Your task to perform on an android device: check android version Image 0: 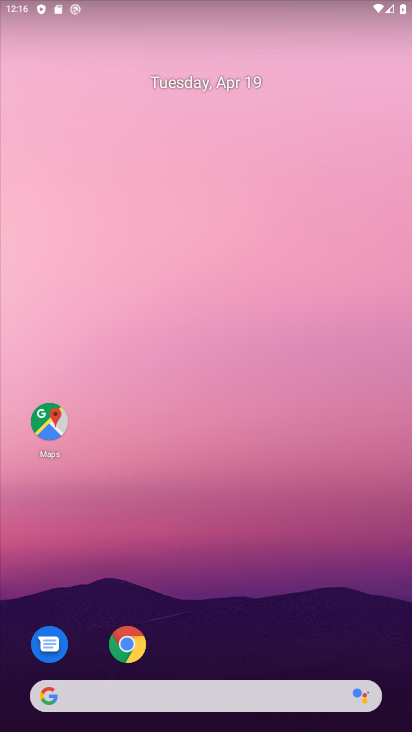
Step 0: drag from (207, 645) to (356, 0)
Your task to perform on an android device: check android version Image 1: 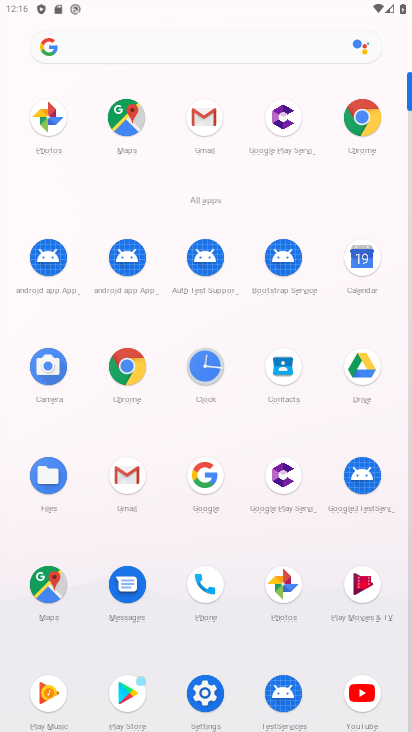
Step 1: click (411, 434)
Your task to perform on an android device: check android version Image 2: 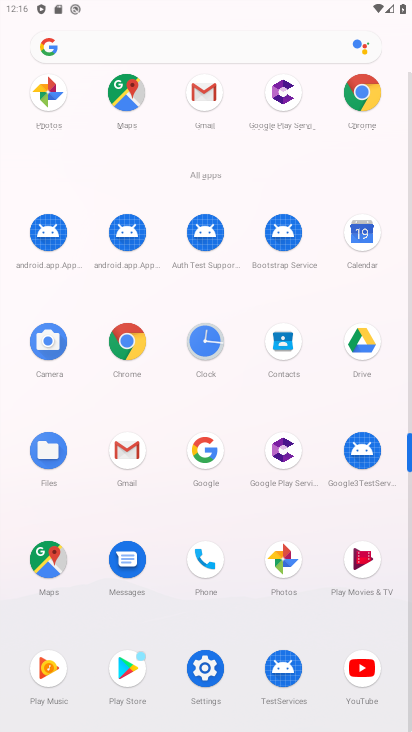
Step 2: click (211, 692)
Your task to perform on an android device: check android version Image 3: 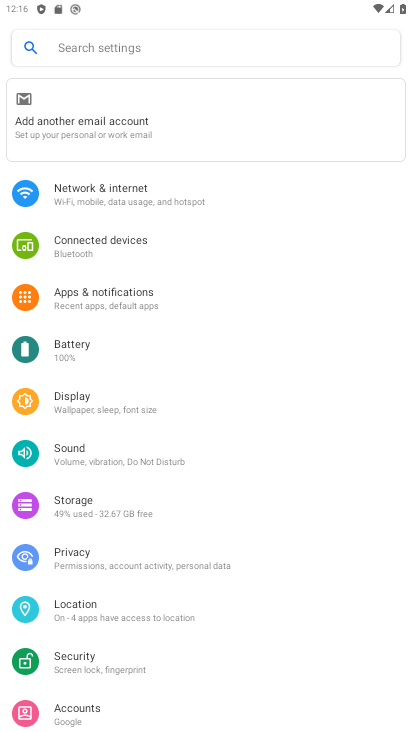
Step 3: drag from (169, 692) to (291, 376)
Your task to perform on an android device: check android version Image 4: 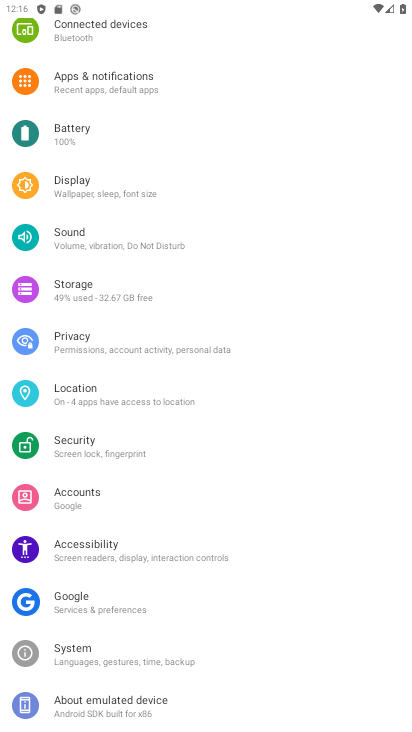
Step 4: click (159, 694)
Your task to perform on an android device: check android version Image 5: 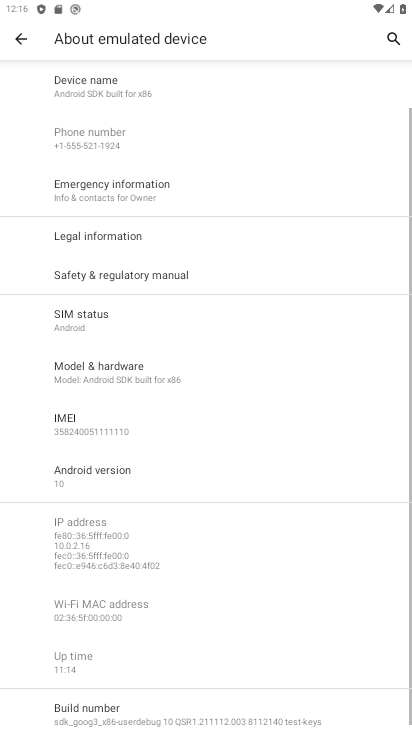
Step 5: click (103, 471)
Your task to perform on an android device: check android version Image 6: 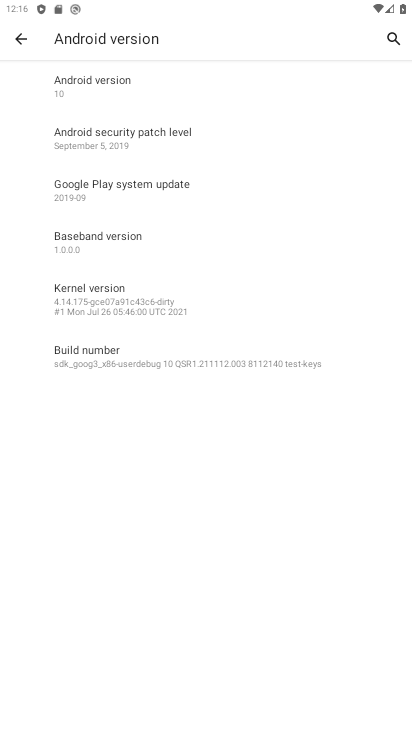
Step 6: task complete